Your task to perform on an android device: Open eBay Image 0: 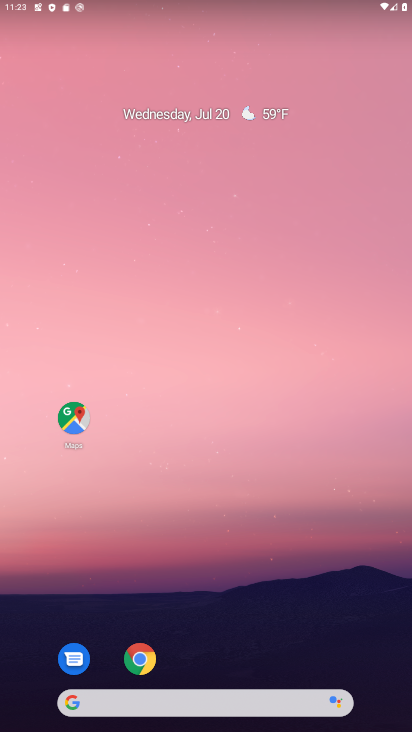
Step 0: click (142, 659)
Your task to perform on an android device: Open eBay Image 1: 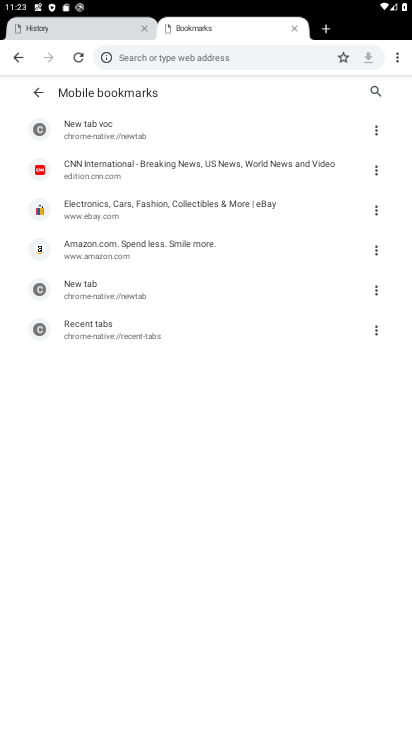
Step 1: click (396, 63)
Your task to perform on an android device: Open eBay Image 2: 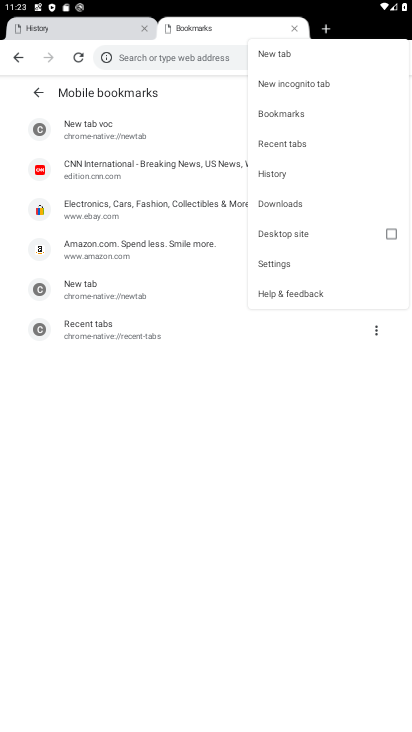
Step 2: click (280, 55)
Your task to perform on an android device: Open eBay Image 3: 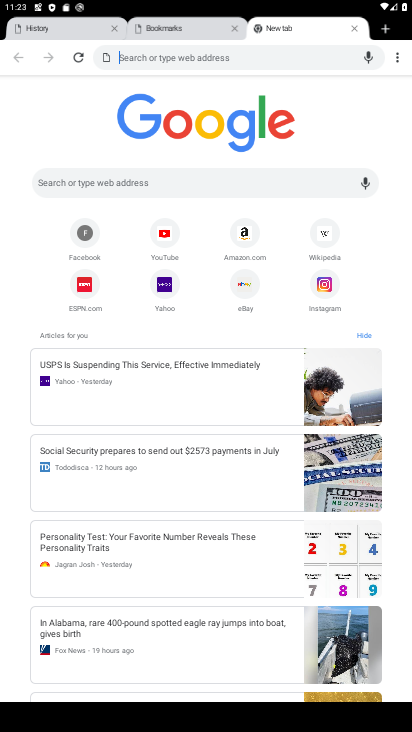
Step 3: click (241, 281)
Your task to perform on an android device: Open eBay Image 4: 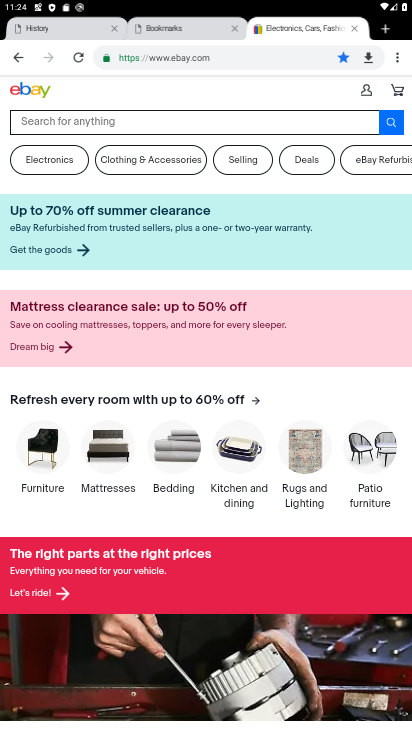
Step 4: task complete